Your task to perform on an android device: Go to eBay Image 0: 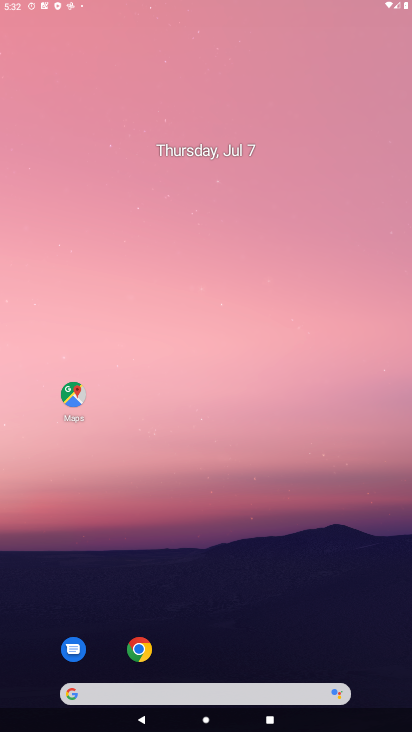
Step 0: drag from (360, 686) to (252, 27)
Your task to perform on an android device: Go to eBay Image 1: 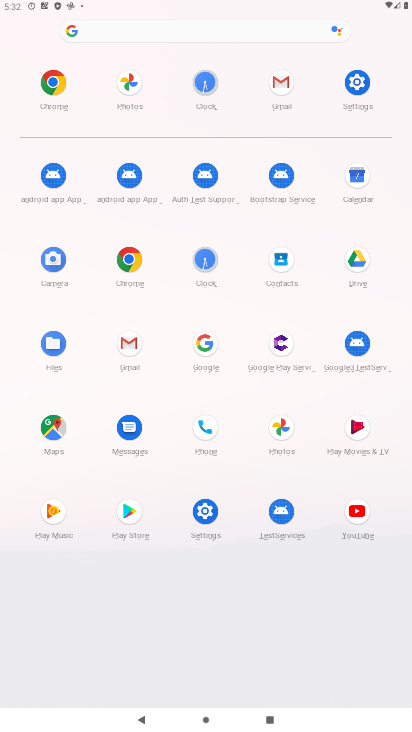
Step 1: click (194, 342)
Your task to perform on an android device: Go to eBay Image 2: 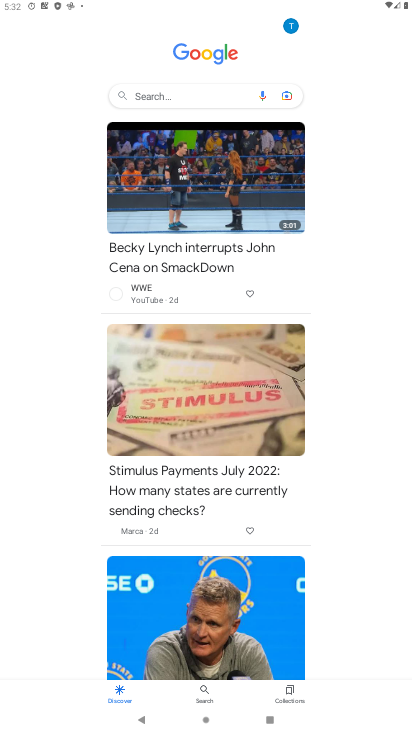
Step 2: click (186, 99)
Your task to perform on an android device: Go to eBay Image 3: 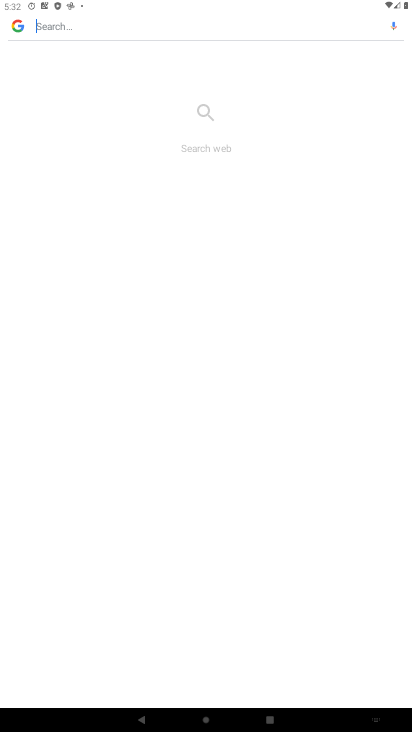
Step 3: type "ebay"
Your task to perform on an android device: Go to eBay Image 4: 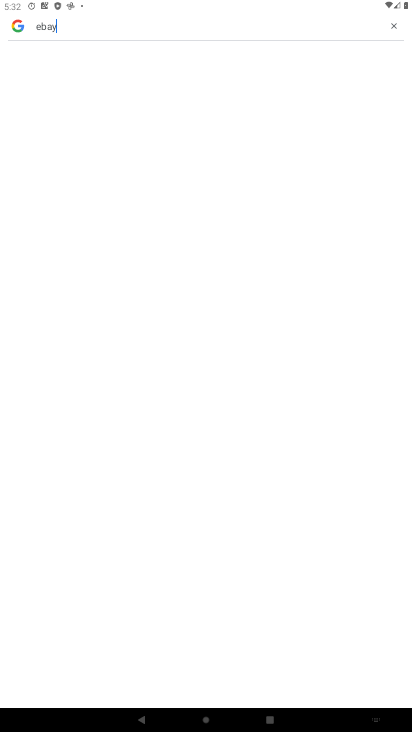
Step 4: task complete